Your task to perform on an android device: empty trash in google photos Image 0: 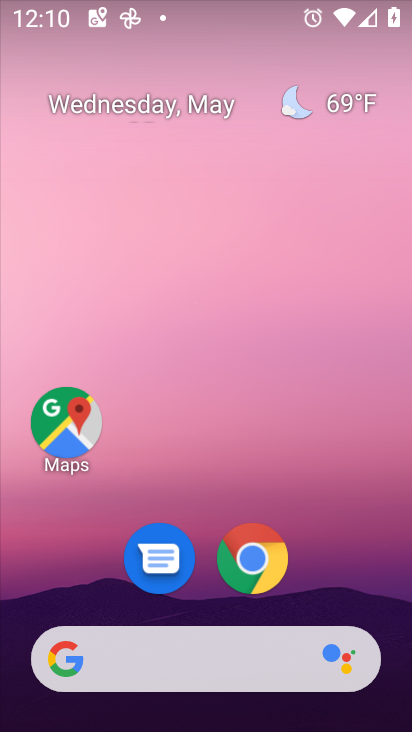
Step 0: drag from (379, 650) to (271, 36)
Your task to perform on an android device: empty trash in google photos Image 1: 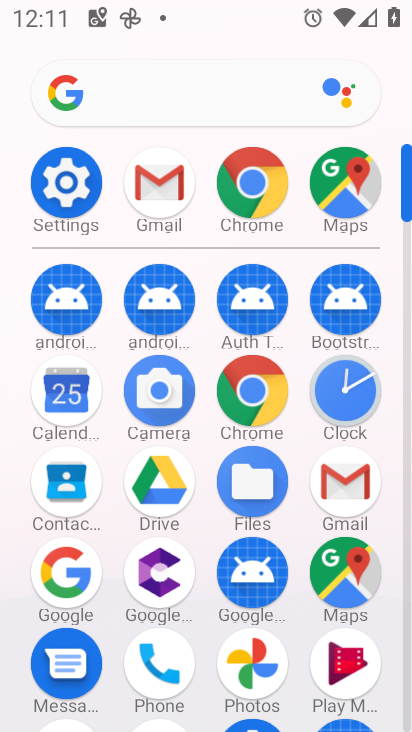
Step 1: click (257, 642)
Your task to perform on an android device: empty trash in google photos Image 2: 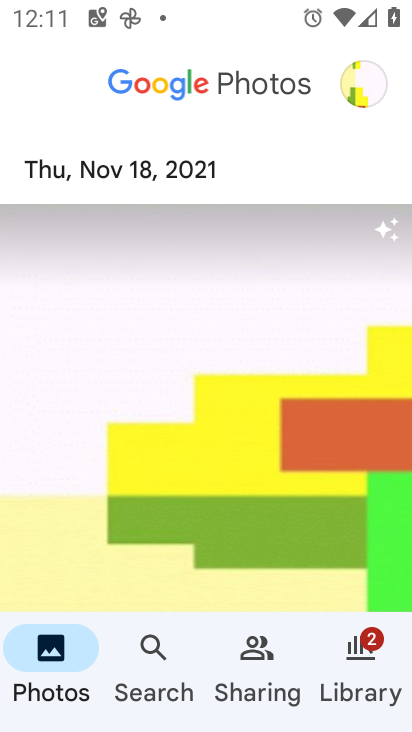
Step 2: click (346, 661)
Your task to perform on an android device: empty trash in google photos Image 3: 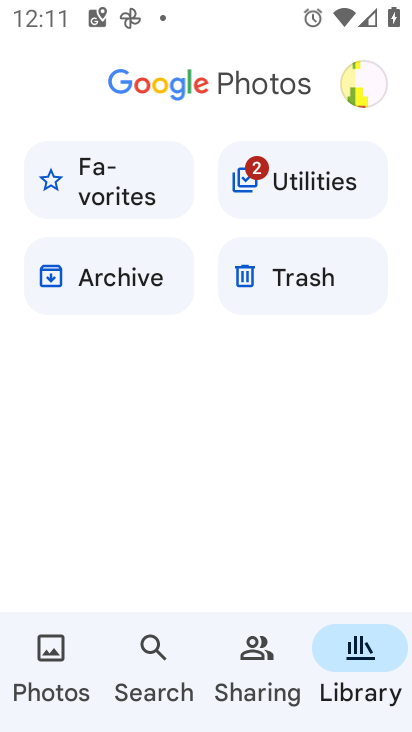
Step 3: click (328, 282)
Your task to perform on an android device: empty trash in google photos Image 4: 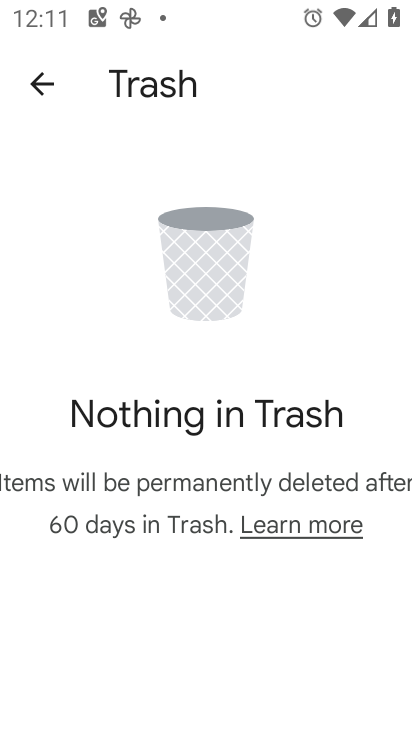
Step 4: task complete